Your task to perform on an android device: Show me the alarms in the clock app Image 0: 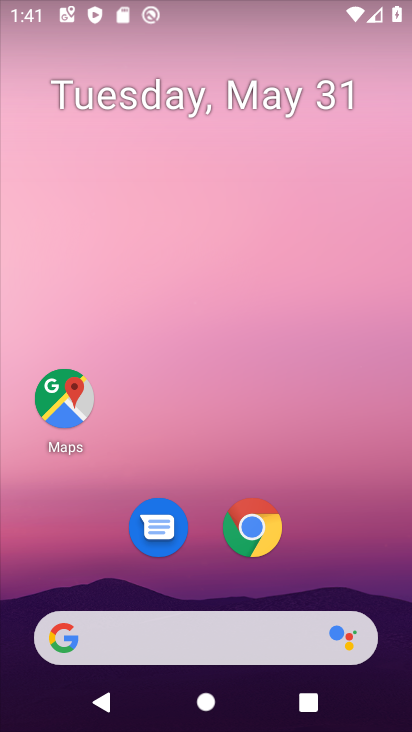
Step 0: drag from (384, 523) to (390, 110)
Your task to perform on an android device: Show me the alarms in the clock app Image 1: 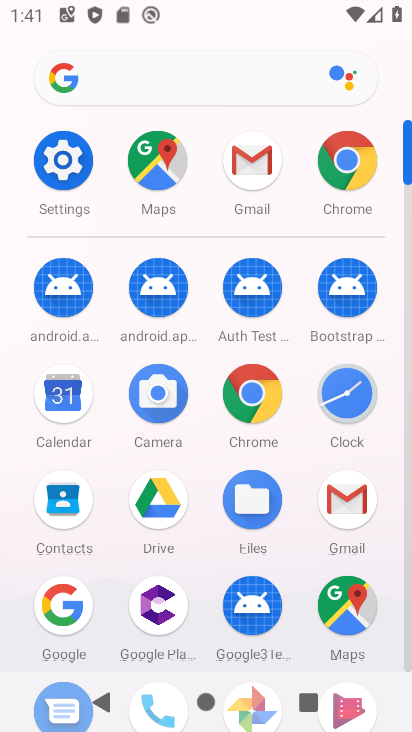
Step 1: click (343, 399)
Your task to perform on an android device: Show me the alarms in the clock app Image 2: 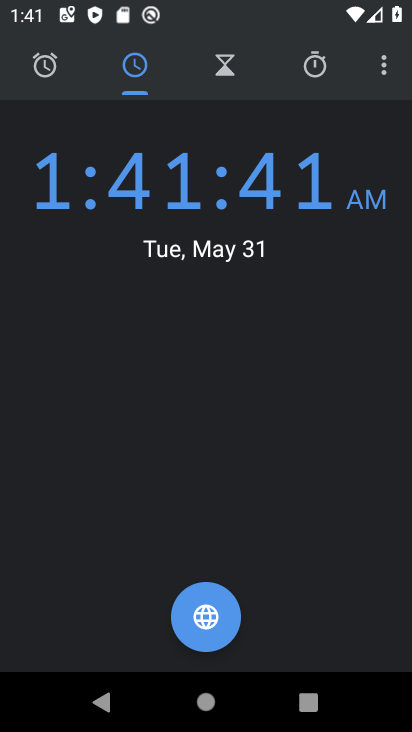
Step 2: click (68, 73)
Your task to perform on an android device: Show me the alarms in the clock app Image 3: 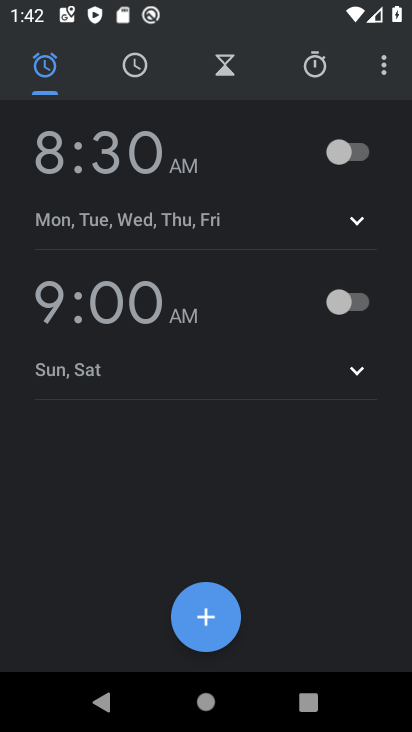
Step 3: task complete